Your task to perform on an android device: open chrome privacy settings Image 0: 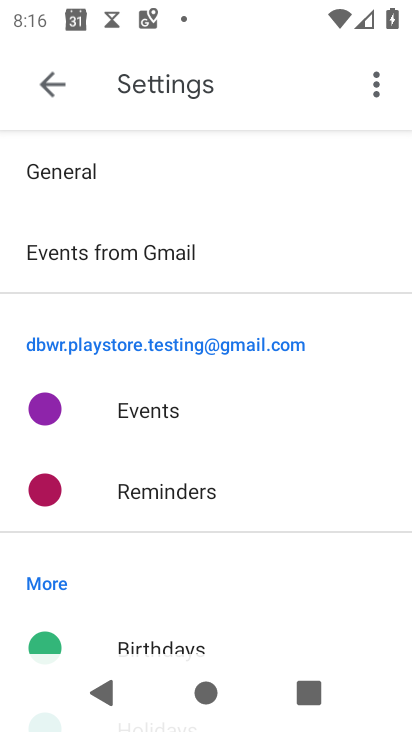
Step 0: press home button
Your task to perform on an android device: open chrome privacy settings Image 1: 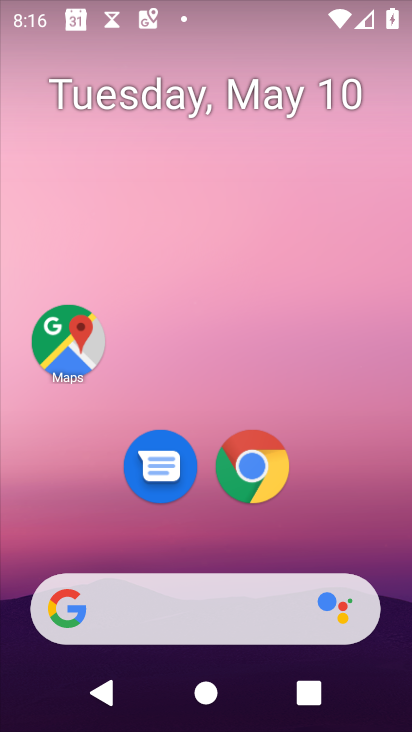
Step 1: click (262, 477)
Your task to perform on an android device: open chrome privacy settings Image 2: 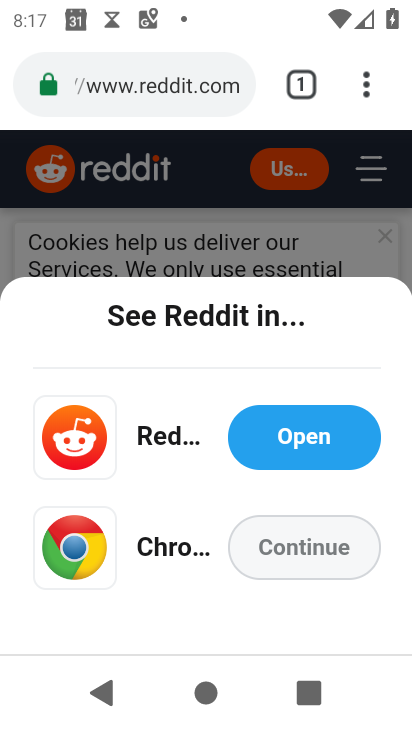
Step 2: click (372, 96)
Your task to perform on an android device: open chrome privacy settings Image 3: 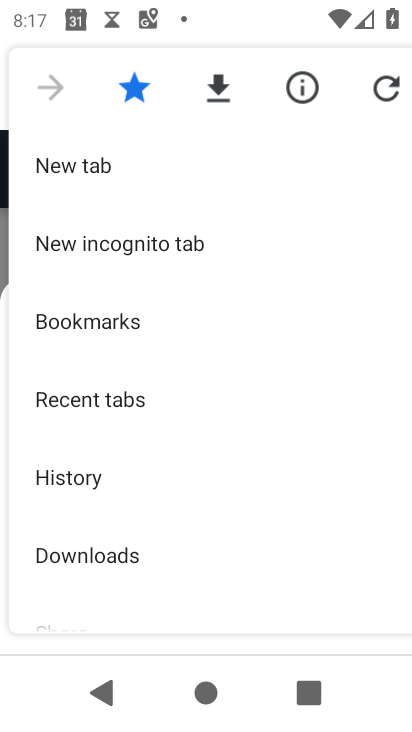
Step 3: drag from (176, 585) to (212, 208)
Your task to perform on an android device: open chrome privacy settings Image 4: 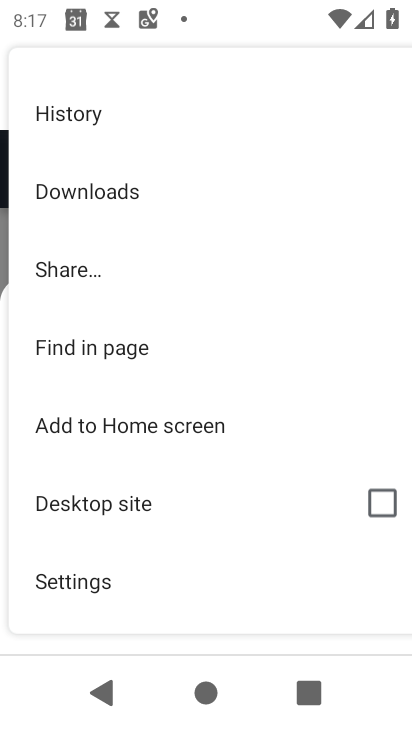
Step 4: click (145, 571)
Your task to perform on an android device: open chrome privacy settings Image 5: 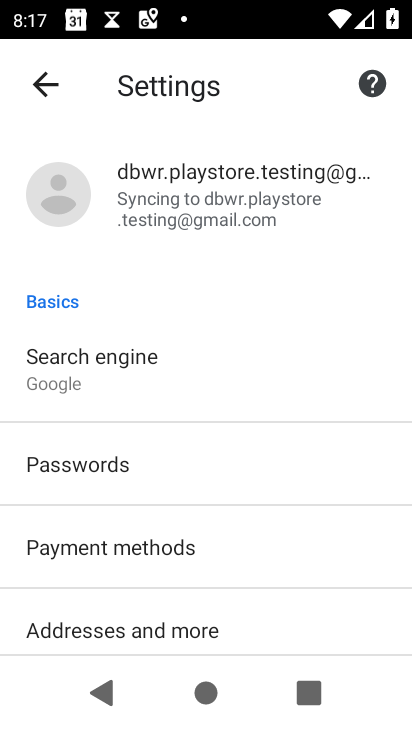
Step 5: drag from (120, 615) to (156, 371)
Your task to perform on an android device: open chrome privacy settings Image 6: 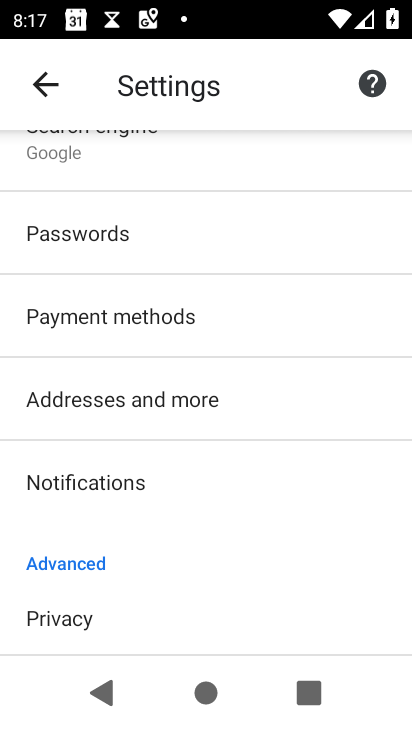
Step 6: click (120, 613)
Your task to perform on an android device: open chrome privacy settings Image 7: 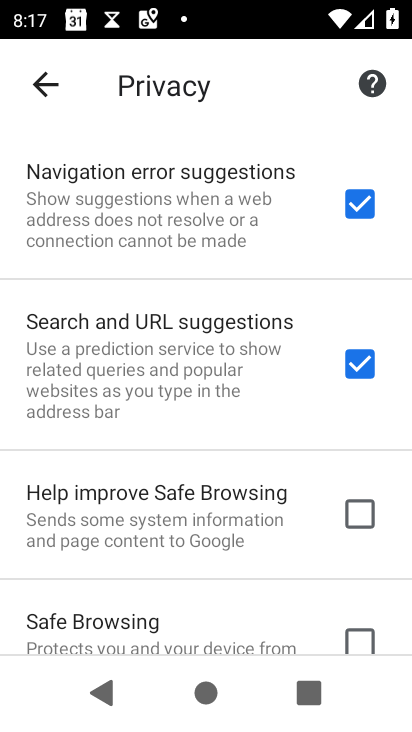
Step 7: task complete